Your task to perform on an android device: Open privacy settings Image 0: 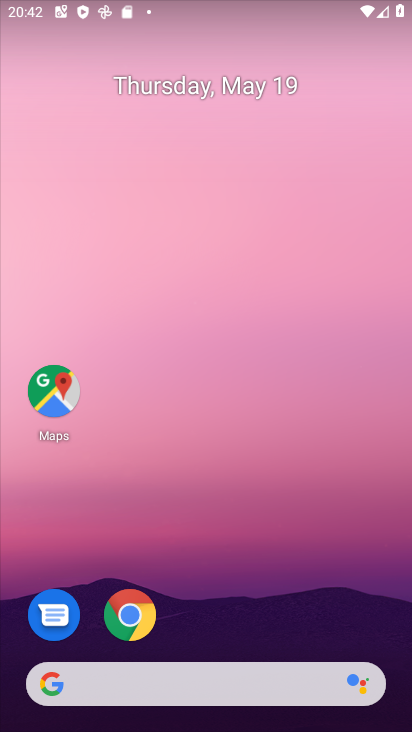
Step 0: drag from (223, 588) to (216, 95)
Your task to perform on an android device: Open privacy settings Image 1: 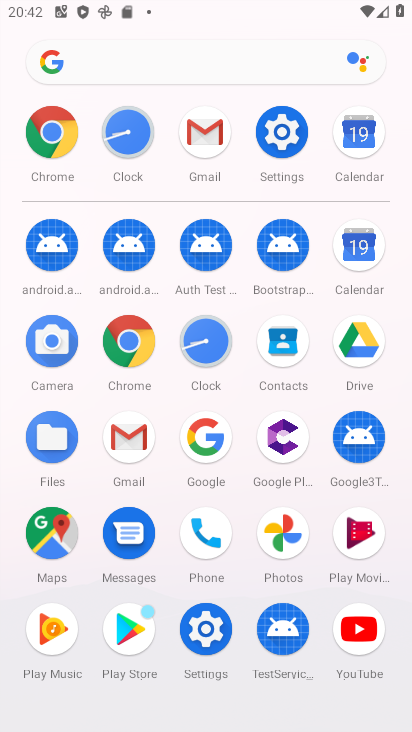
Step 1: click (280, 123)
Your task to perform on an android device: Open privacy settings Image 2: 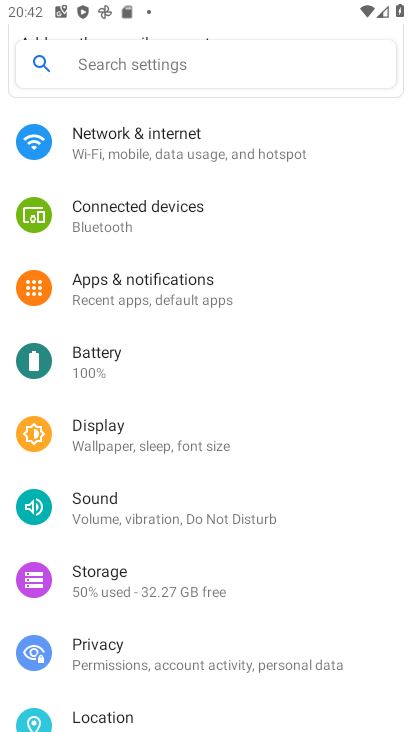
Step 2: click (130, 640)
Your task to perform on an android device: Open privacy settings Image 3: 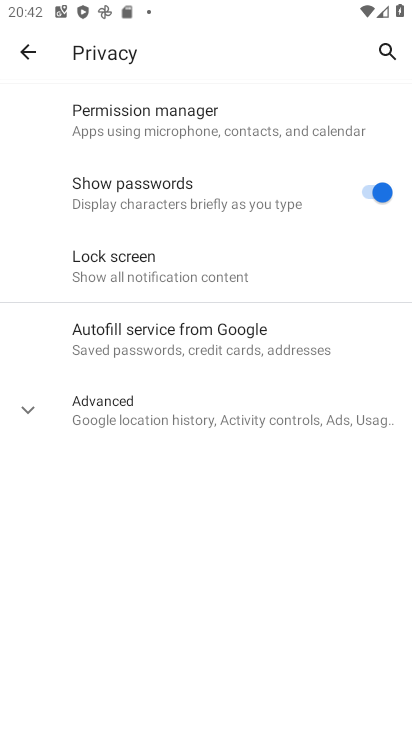
Step 3: task complete